Your task to perform on an android device: Search for seafood restaurants on Google Maps Image 0: 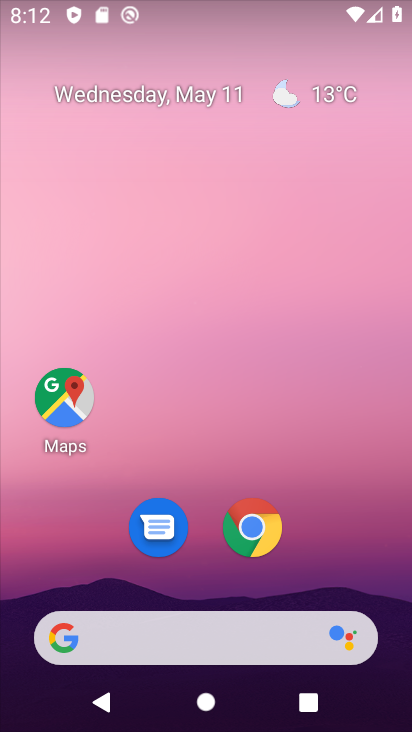
Step 0: click (68, 399)
Your task to perform on an android device: Search for seafood restaurants on Google Maps Image 1: 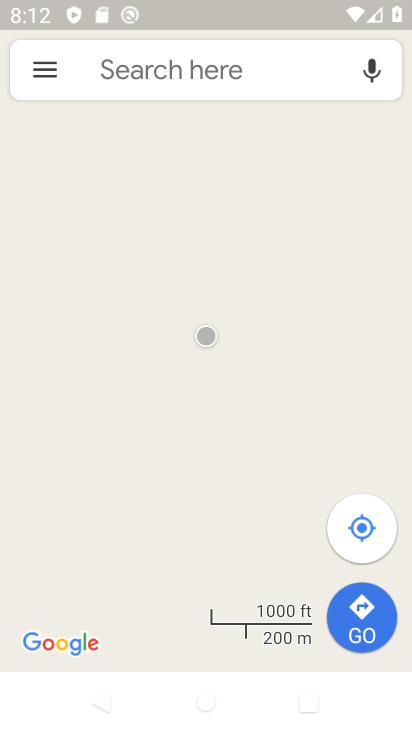
Step 1: click (163, 67)
Your task to perform on an android device: Search for seafood restaurants on Google Maps Image 2: 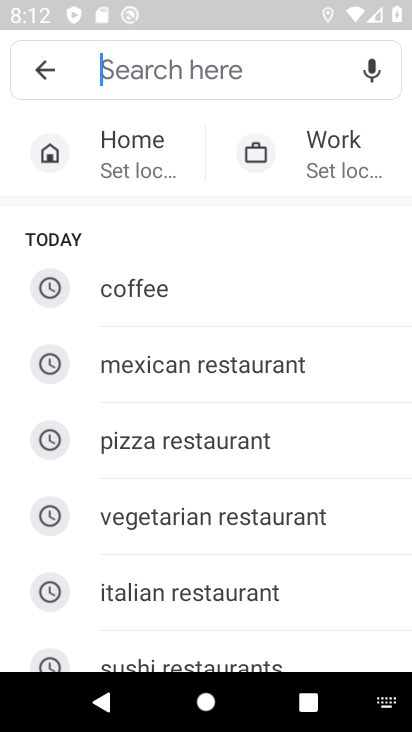
Step 2: type "seafood restaurants"
Your task to perform on an android device: Search for seafood restaurants on Google Maps Image 3: 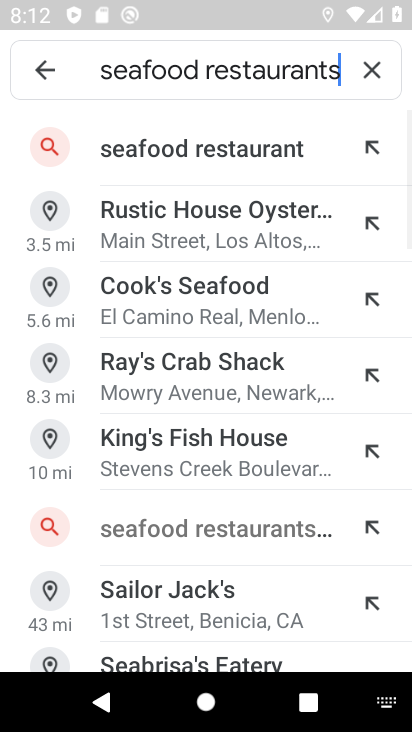
Step 3: click (158, 167)
Your task to perform on an android device: Search for seafood restaurants on Google Maps Image 4: 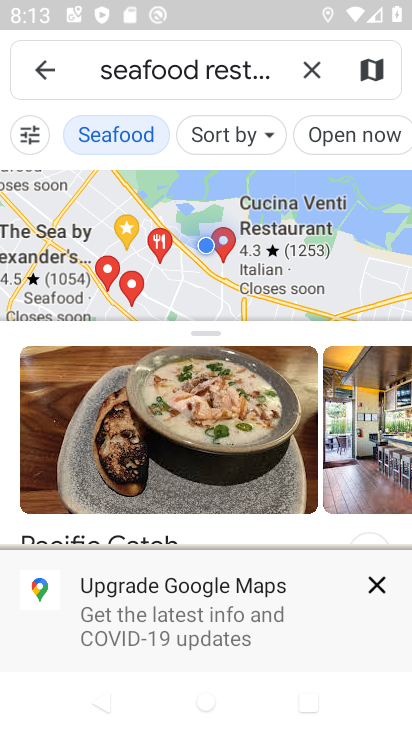
Step 4: click (387, 589)
Your task to perform on an android device: Search for seafood restaurants on Google Maps Image 5: 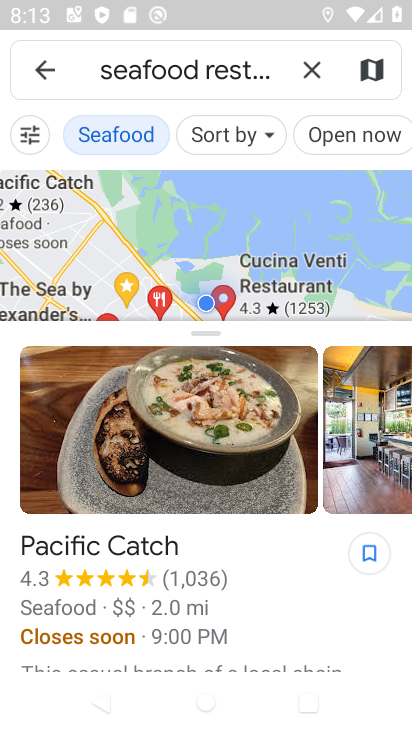
Step 5: task complete